Your task to perform on an android device: add a contact Image 0: 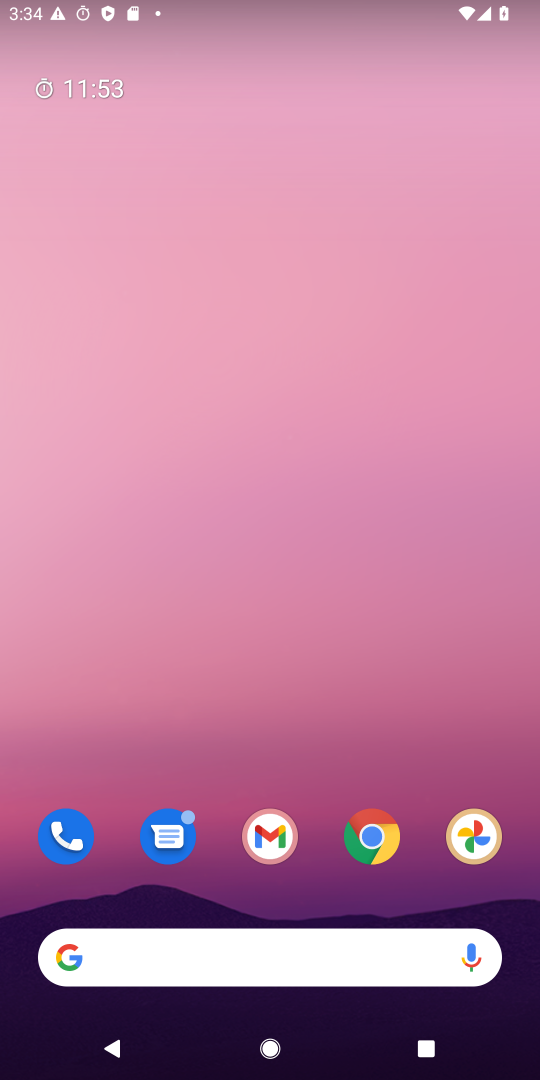
Step 0: drag from (318, 878) to (336, 190)
Your task to perform on an android device: add a contact Image 1: 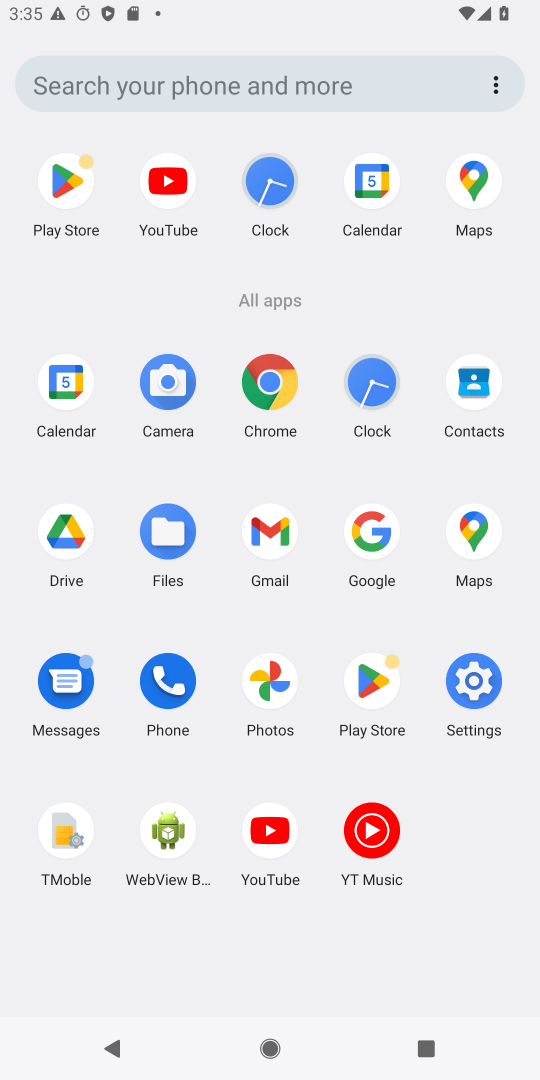
Step 1: click (493, 387)
Your task to perform on an android device: add a contact Image 2: 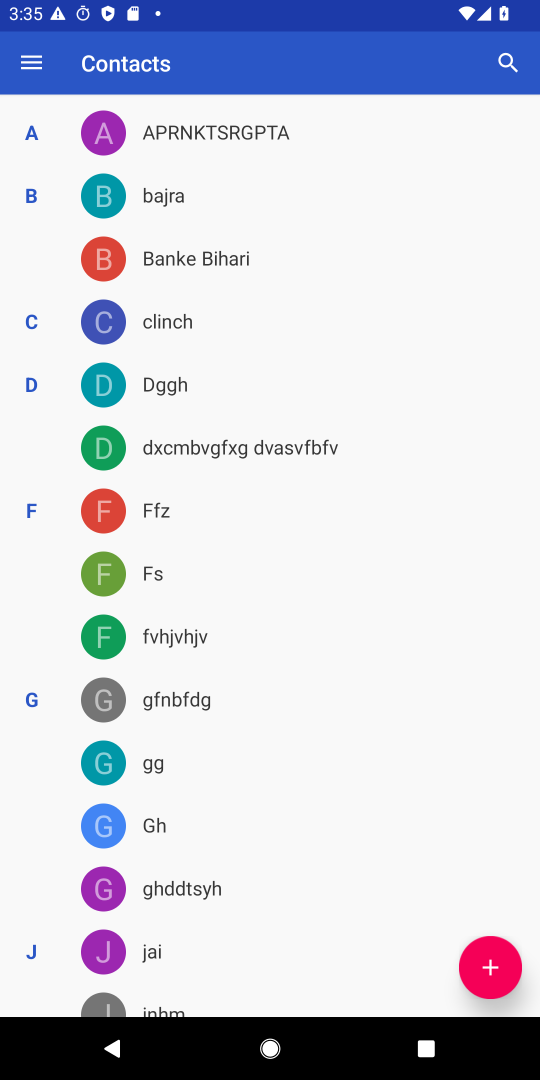
Step 2: click (496, 971)
Your task to perform on an android device: add a contact Image 3: 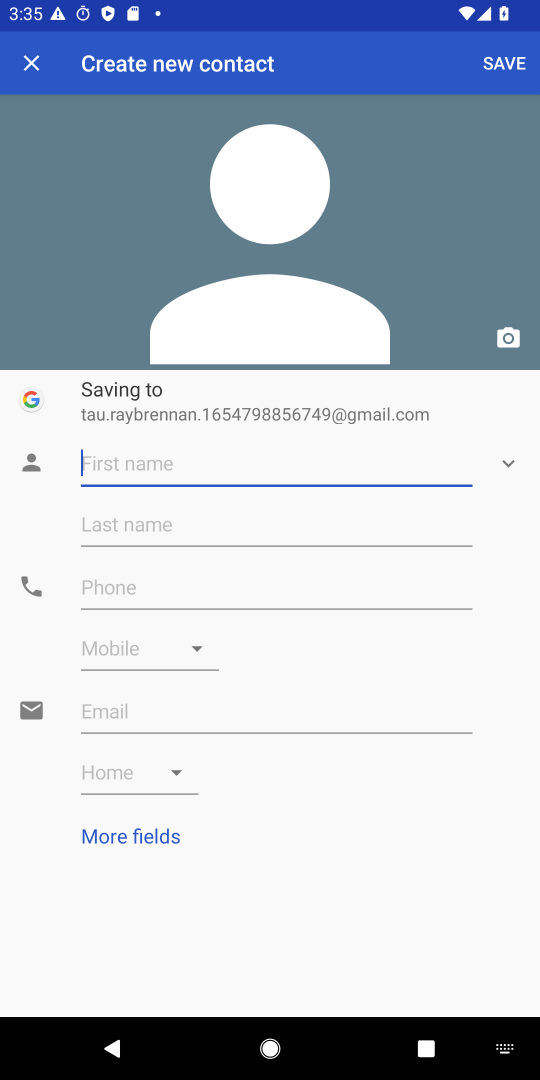
Step 3: type "flatei"
Your task to perform on an android device: add a contact Image 4: 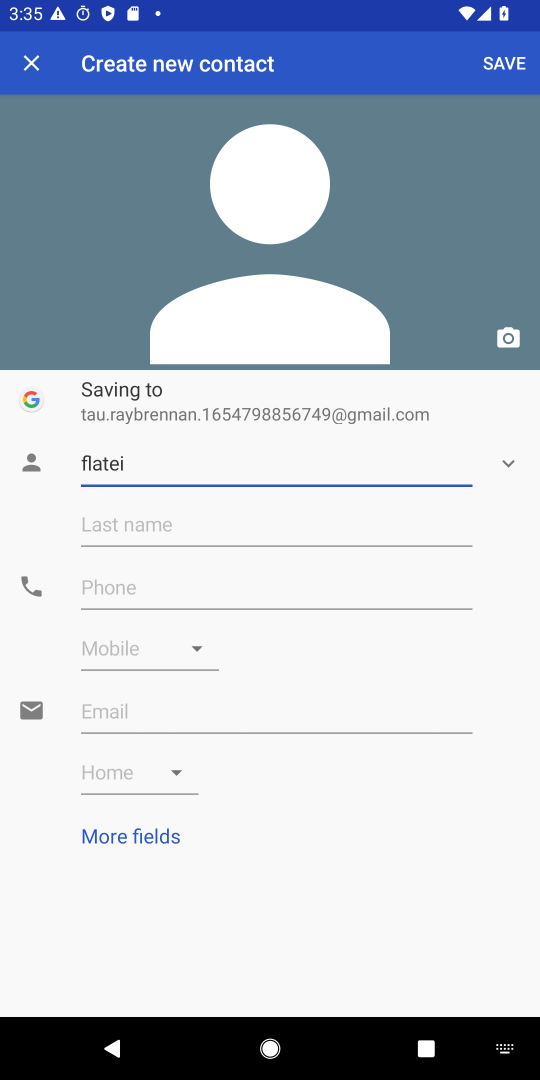
Step 4: click (487, 68)
Your task to perform on an android device: add a contact Image 5: 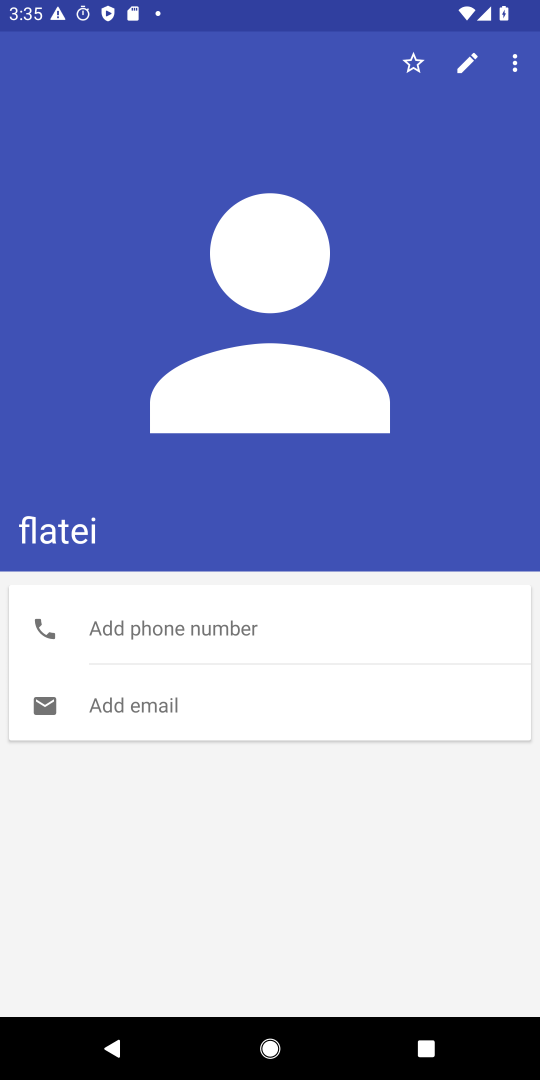
Step 5: task complete